Your task to perform on an android device: turn smart compose on in the gmail app Image 0: 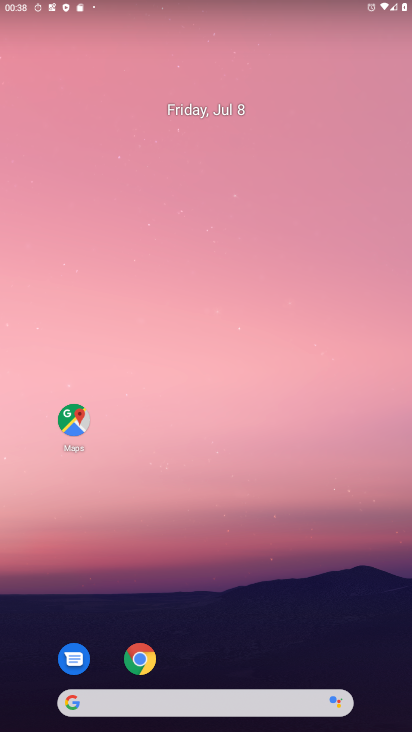
Step 0: drag from (188, 652) to (144, 10)
Your task to perform on an android device: turn smart compose on in the gmail app Image 1: 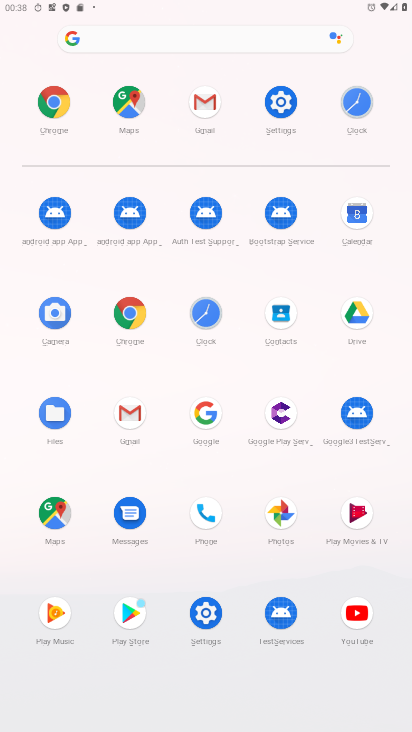
Step 1: click (212, 132)
Your task to perform on an android device: turn smart compose on in the gmail app Image 2: 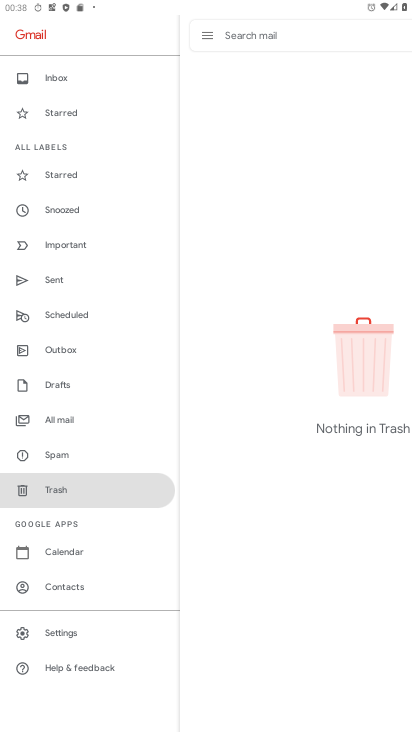
Step 2: click (123, 625)
Your task to perform on an android device: turn smart compose on in the gmail app Image 3: 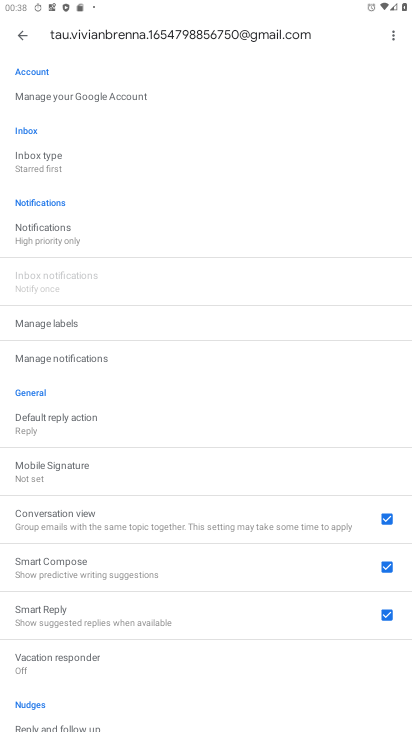
Step 3: task complete